Your task to perform on an android device: Install the Lyft app Image 0: 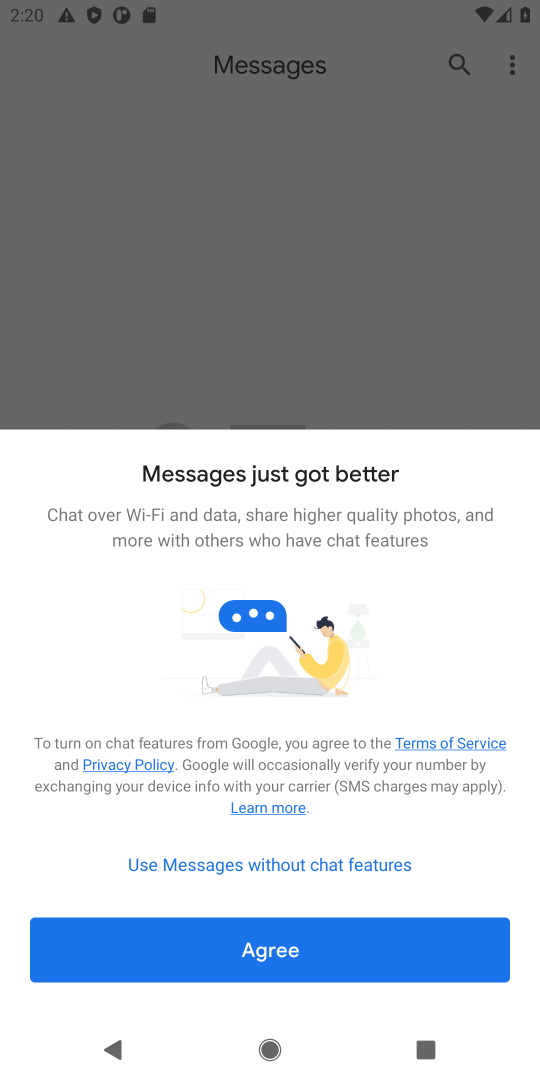
Step 0: press home button
Your task to perform on an android device: Install the Lyft app Image 1: 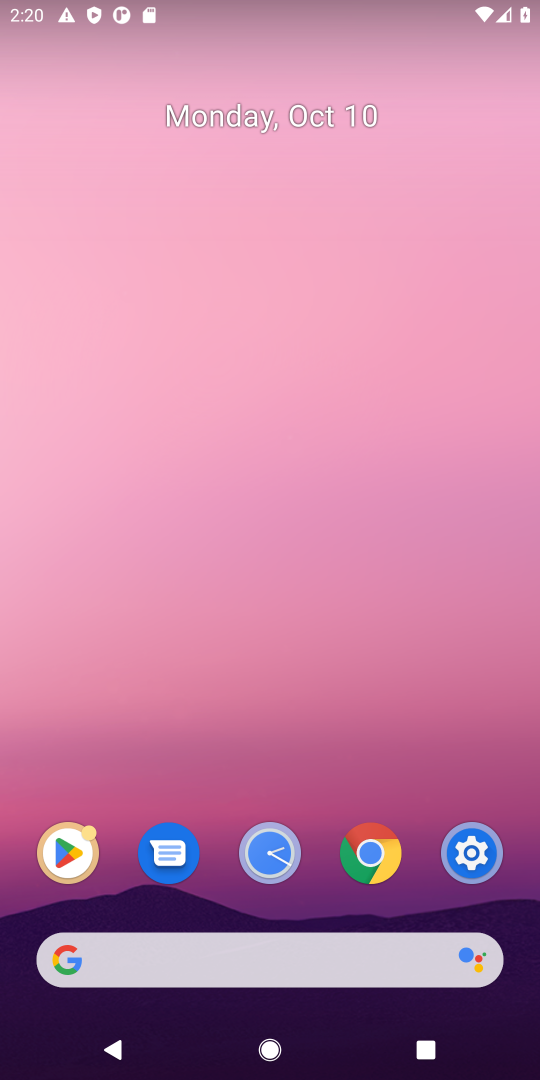
Step 1: click (73, 855)
Your task to perform on an android device: Install the Lyft app Image 2: 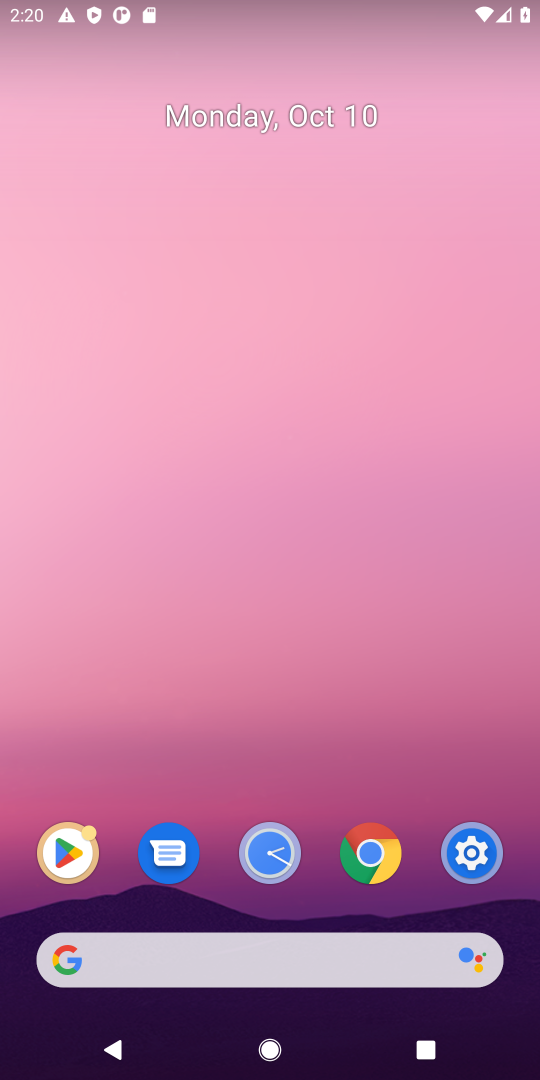
Step 2: click (74, 860)
Your task to perform on an android device: Install the Lyft app Image 3: 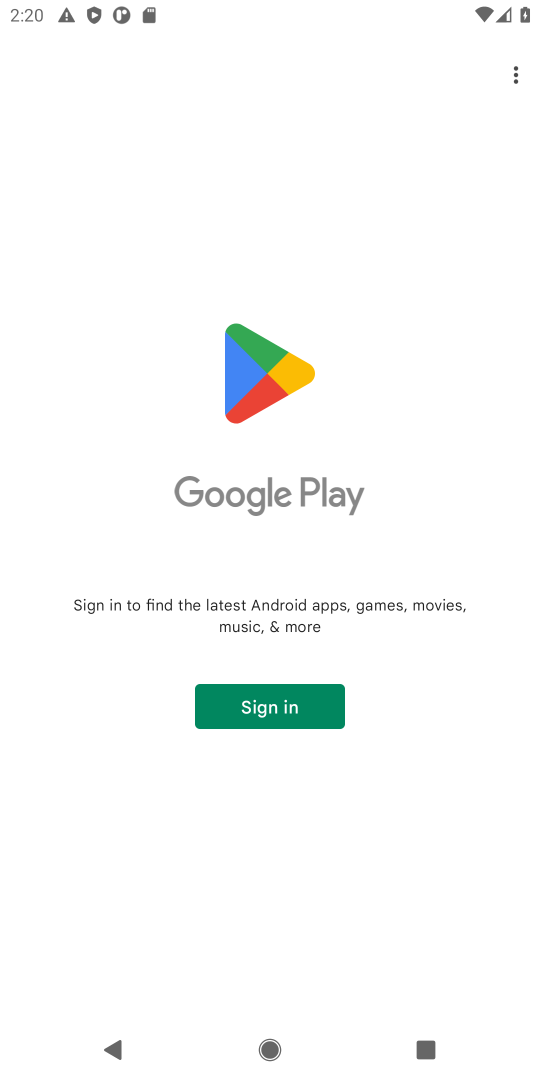
Step 3: click (279, 712)
Your task to perform on an android device: Install the Lyft app Image 4: 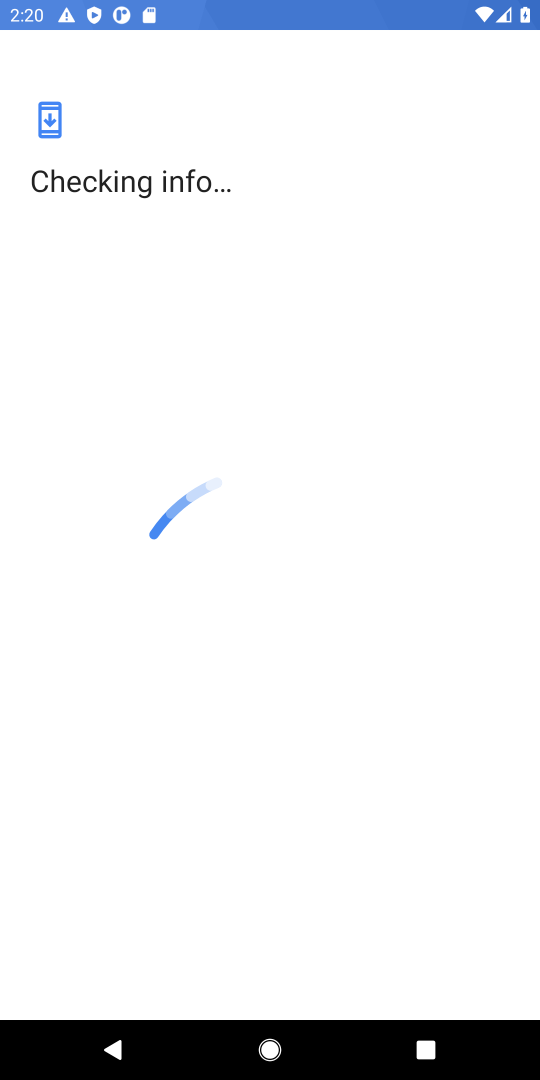
Step 4: task complete